Your task to perform on an android device: Do I have any events tomorrow? Image 0: 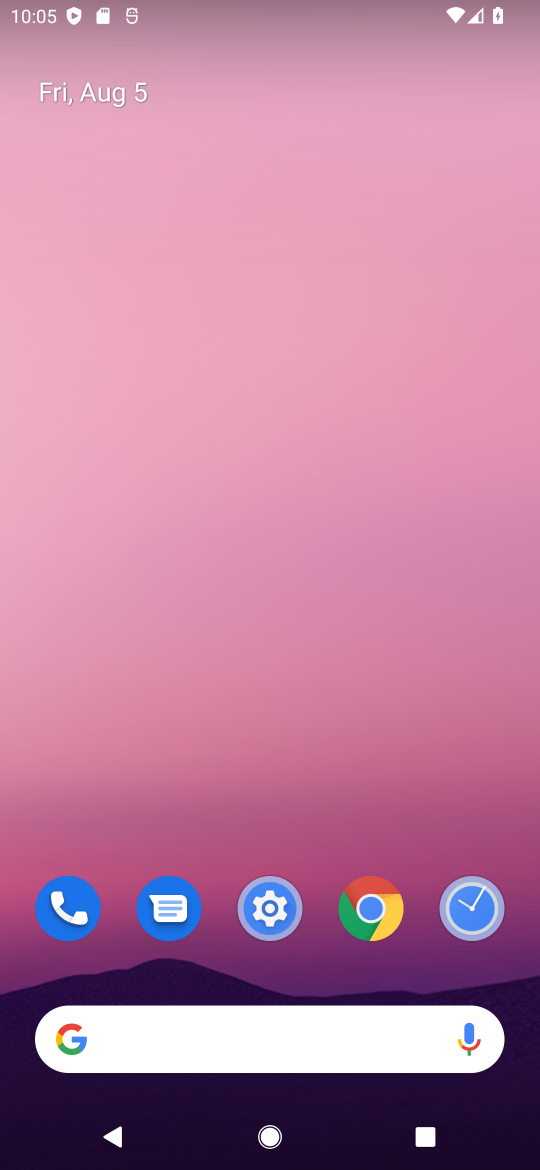
Step 0: drag from (325, 969) to (284, 100)
Your task to perform on an android device: Do I have any events tomorrow? Image 1: 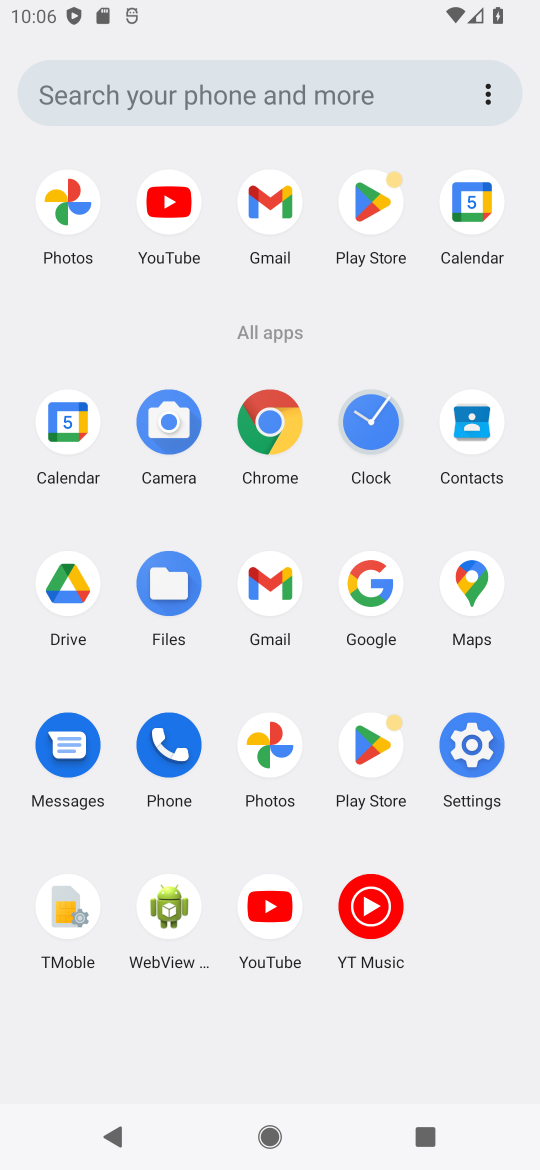
Step 1: task complete